Your task to perform on an android device: What's the weather going to be tomorrow? Image 0: 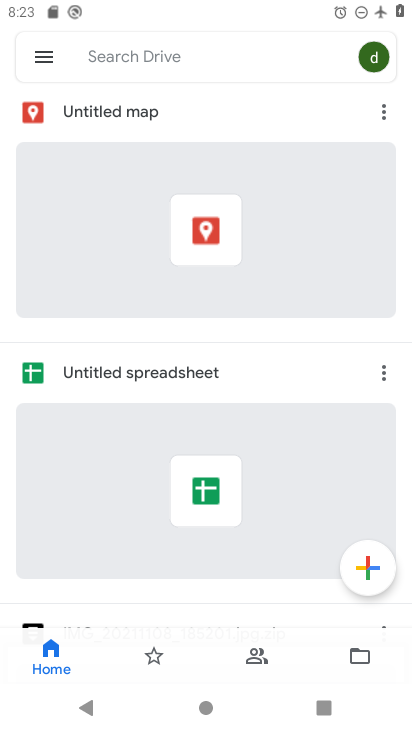
Step 0: press back button
Your task to perform on an android device: What's the weather going to be tomorrow? Image 1: 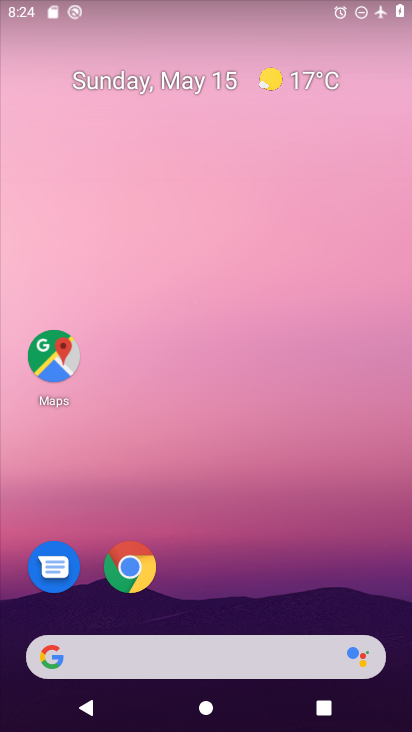
Step 1: drag from (249, 622) to (226, 47)
Your task to perform on an android device: What's the weather going to be tomorrow? Image 2: 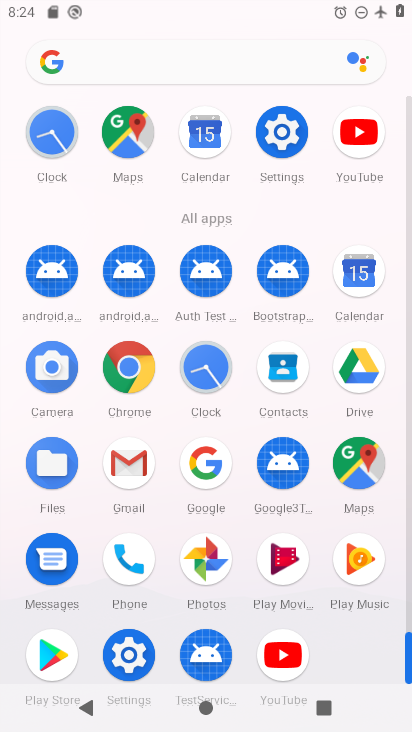
Step 2: click (357, 277)
Your task to perform on an android device: What's the weather going to be tomorrow? Image 3: 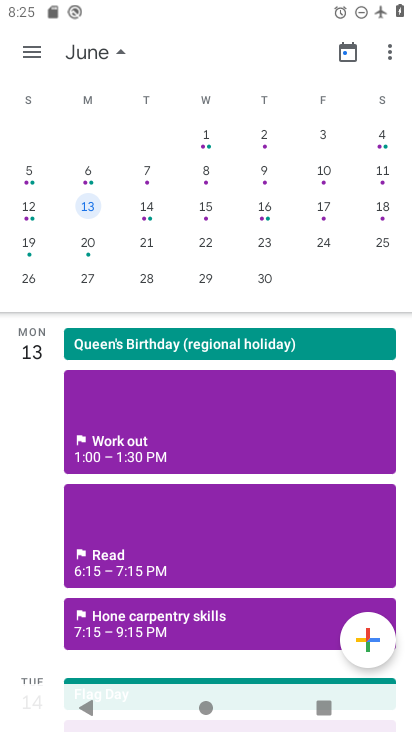
Step 3: click (144, 211)
Your task to perform on an android device: What's the weather going to be tomorrow? Image 4: 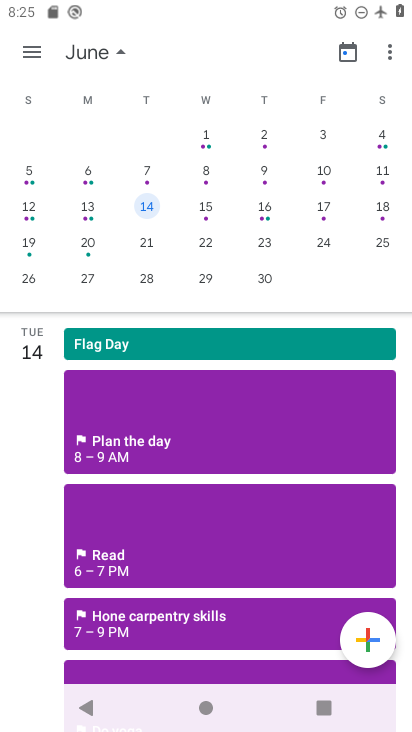
Step 4: task complete